Your task to perform on an android device: Go to CNN.com Image 0: 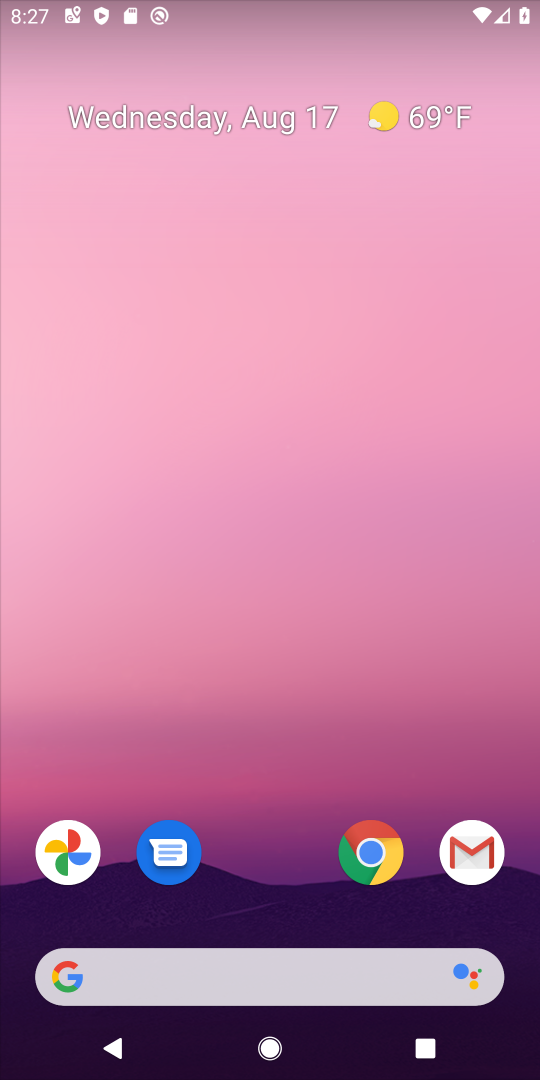
Step 0: click (265, 963)
Your task to perform on an android device: Go to CNN.com Image 1: 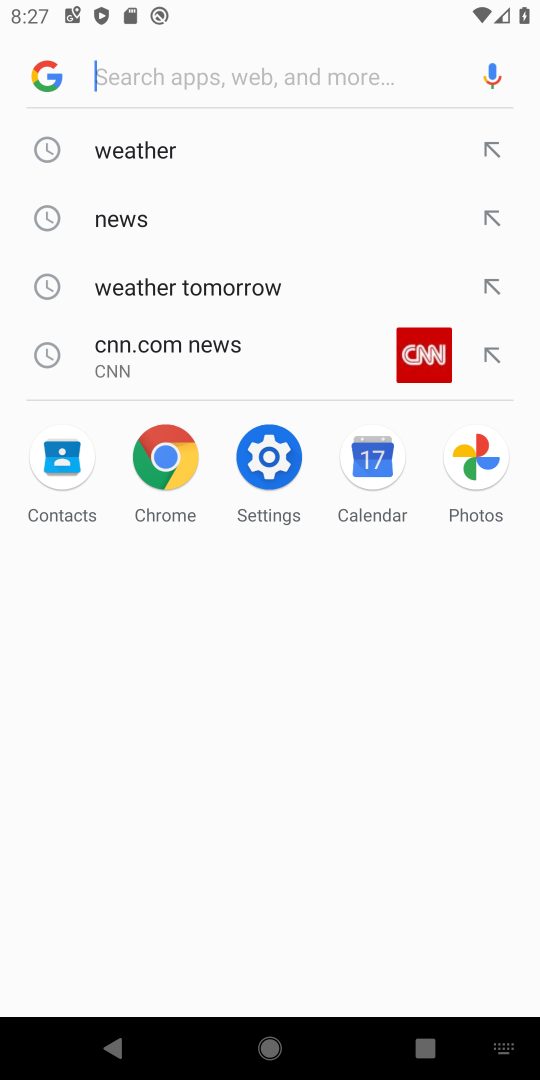
Step 1: click (172, 349)
Your task to perform on an android device: Go to CNN.com Image 2: 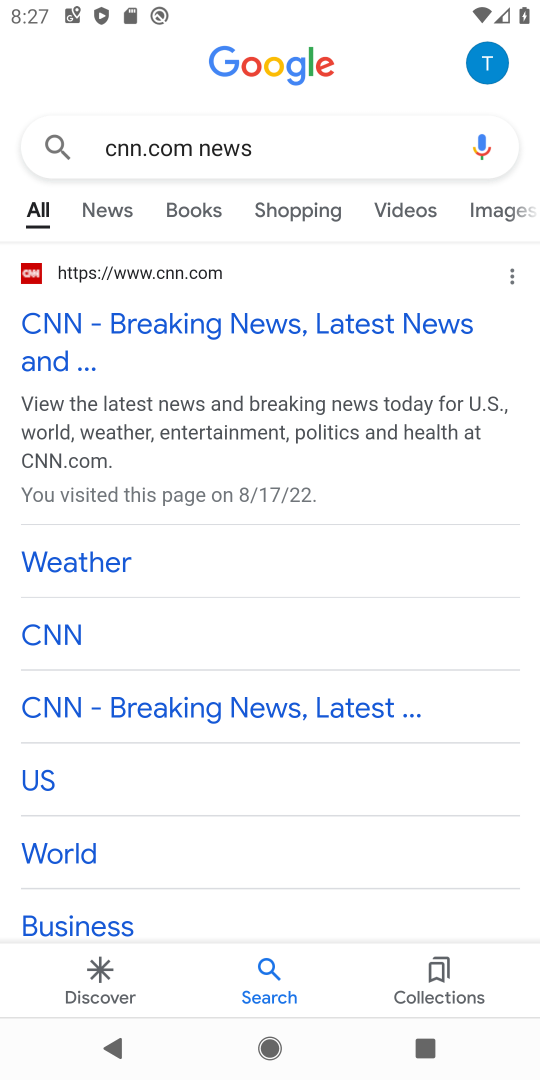
Step 2: click (64, 317)
Your task to perform on an android device: Go to CNN.com Image 3: 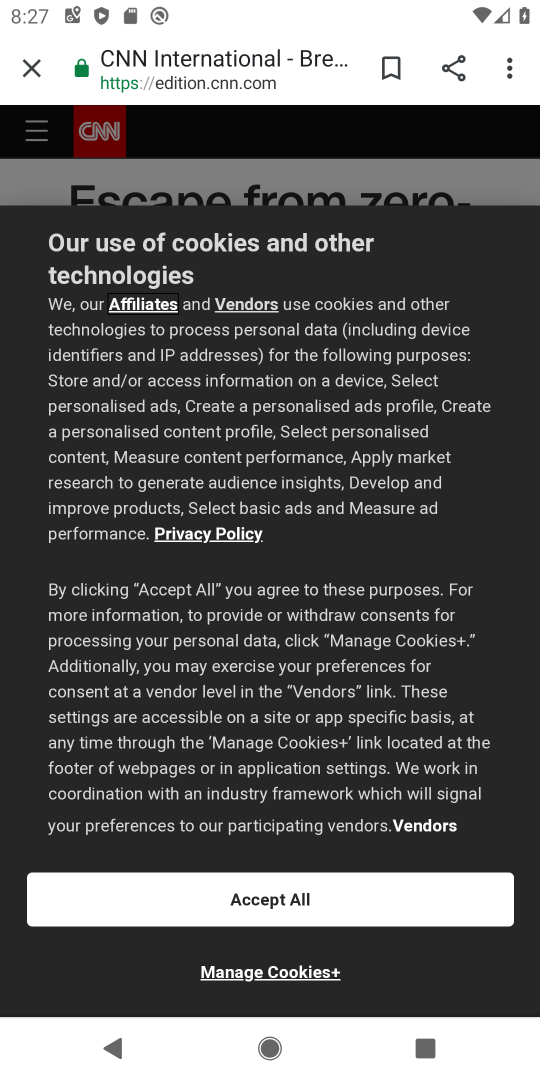
Step 3: click (277, 910)
Your task to perform on an android device: Go to CNN.com Image 4: 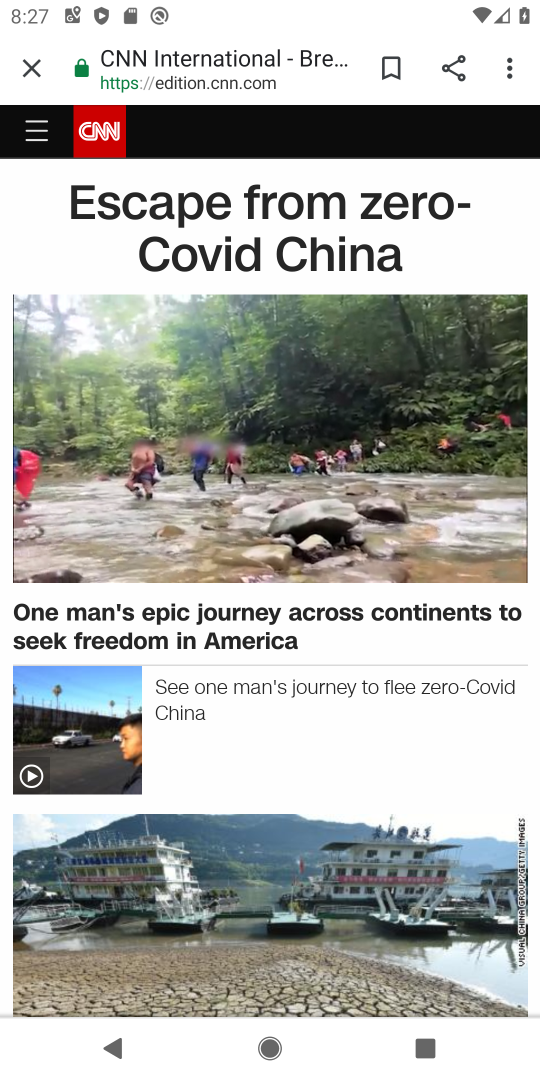
Step 4: task complete